Your task to perform on an android device: Open settings Image 0: 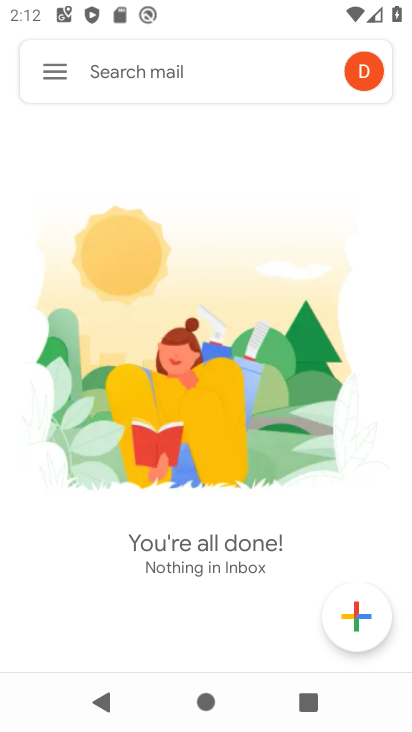
Step 0: press home button
Your task to perform on an android device: Open settings Image 1: 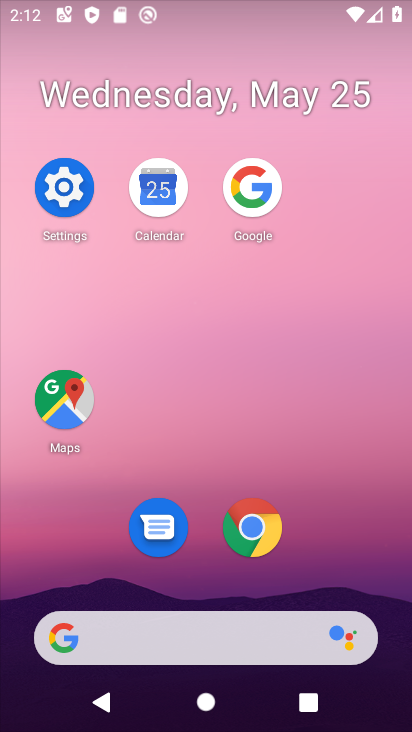
Step 1: click (80, 179)
Your task to perform on an android device: Open settings Image 2: 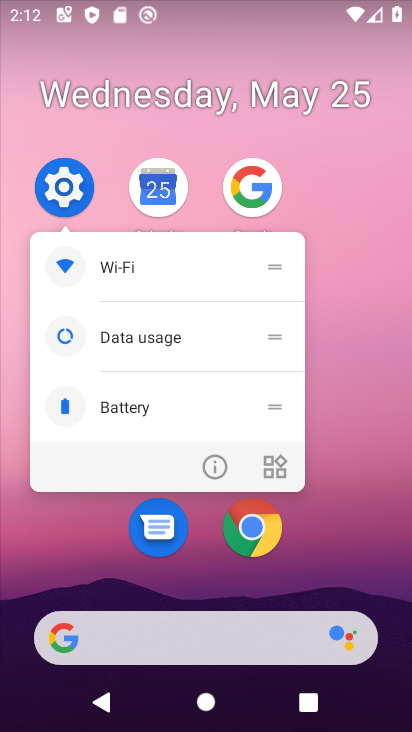
Step 2: click (81, 185)
Your task to perform on an android device: Open settings Image 3: 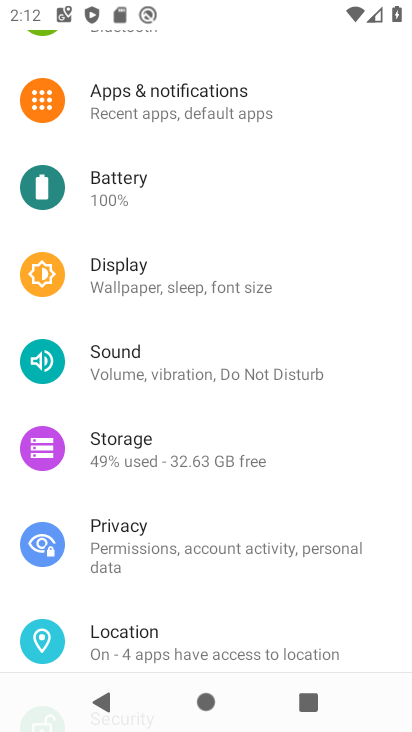
Step 3: task complete